Your task to perform on an android device: Go to settings Image 0: 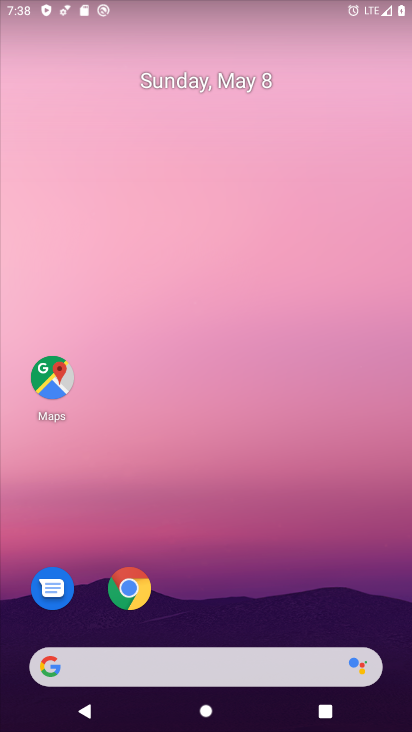
Step 0: drag from (157, 624) to (373, 95)
Your task to perform on an android device: Go to settings Image 1: 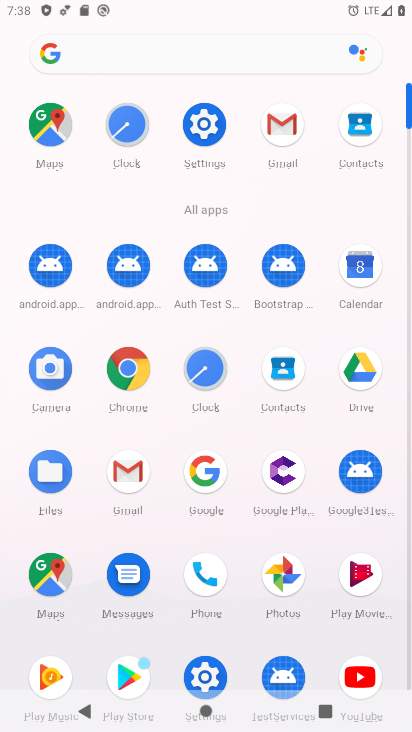
Step 1: click (207, 672)
Your task to perform on an android device: Go to settings Image 2: 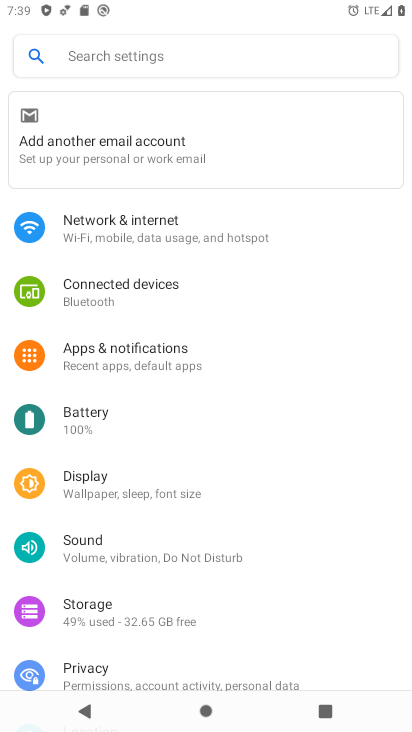
Step 2: task complete